Your task to perform on an android device: change notification settings in the gmail app Image 0: 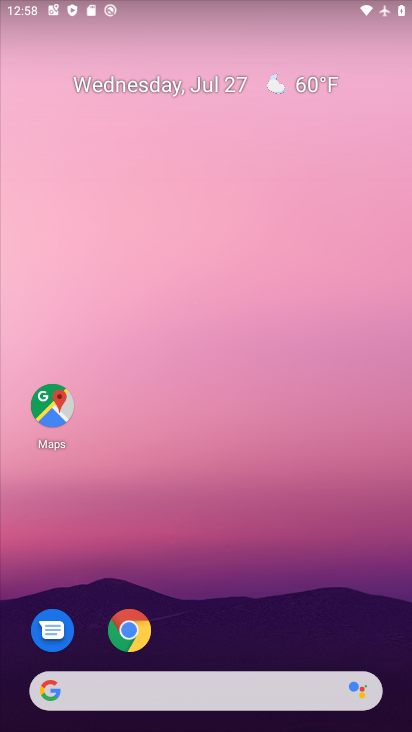
Step 0: press home button
Your task to perform on an android device: change notification settings in the gmail app Image 1: 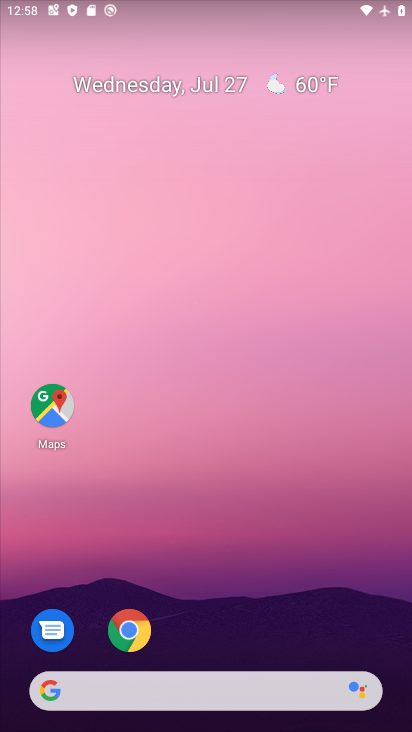
Step 1: drag from (220, 258) to (140, 0)
Your task to perform on an android device: change notification settings in the gmail app Image 2: 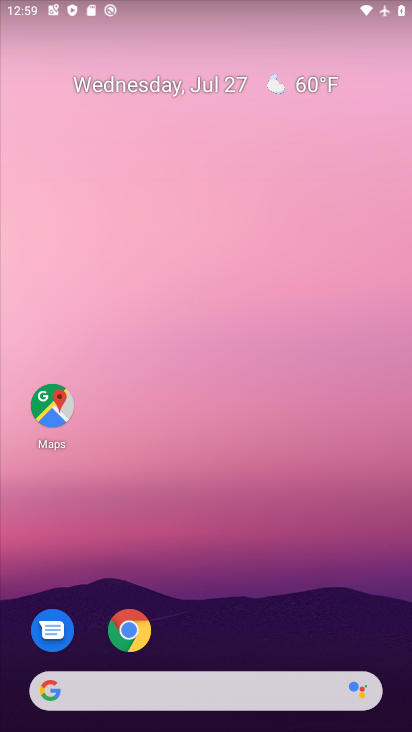
Step 2: drag from (255, 646) to (265, 7)
Your task to perform on an android device: change notification settings in the gmail app Image 3: 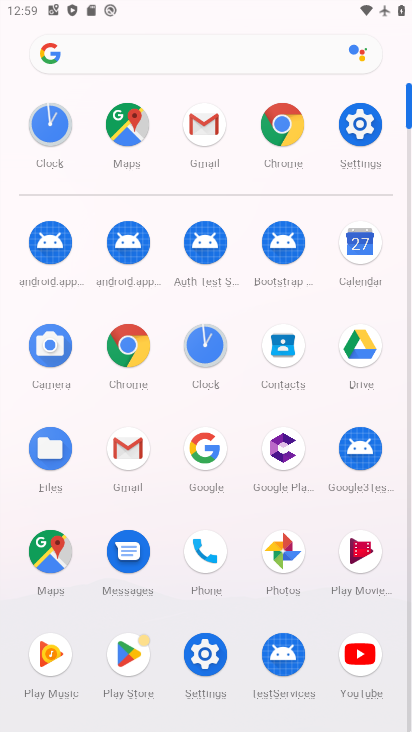
Step 3: click (202, 132)
Your task to perform on an android device: change notification settings in the gmail app Image 4: 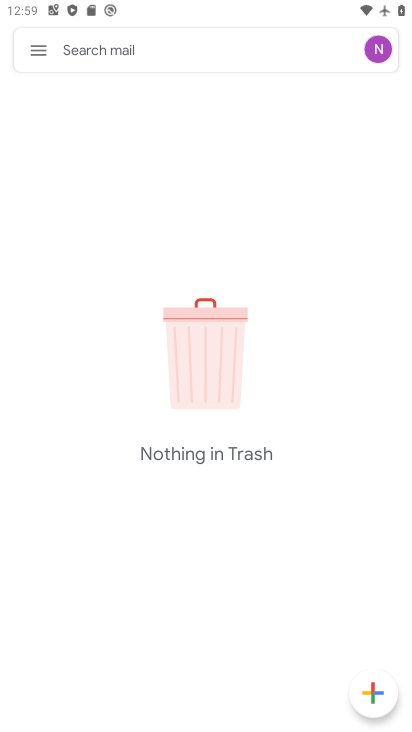
Step 4: click (38, 59)
Your task to perform on an android device: change notification settings in the gmail app Image 5: 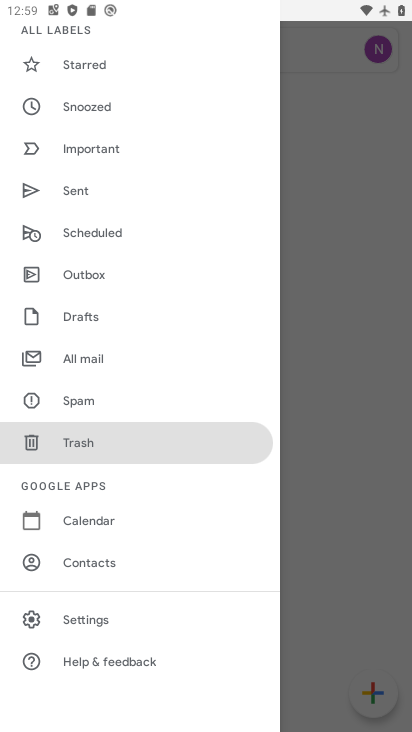
Step 5: click (90, 624)
Your task to perform on an android device: change notification settings in the gmail app Image 6: 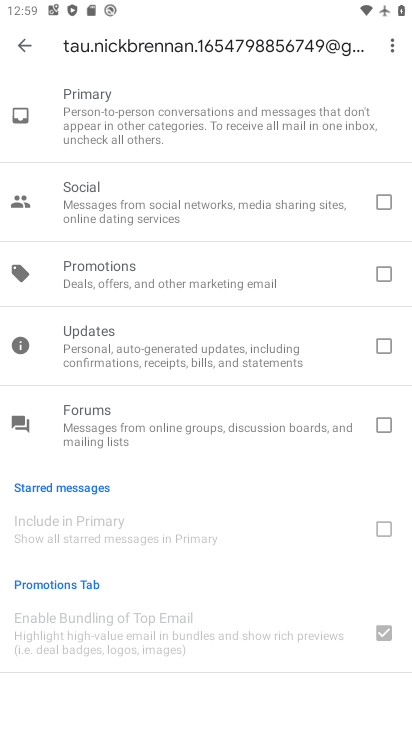
Step 6: click (20, 40)
Your task to perform on an android device: change notification settings in the gmail app Image 7: 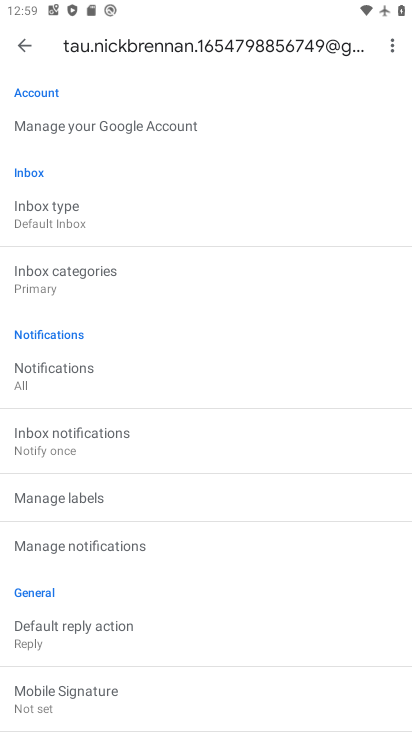
Step 7: click (80, 545)
Your task to perform on an android device: change notification settings in the gmail app Image 8: 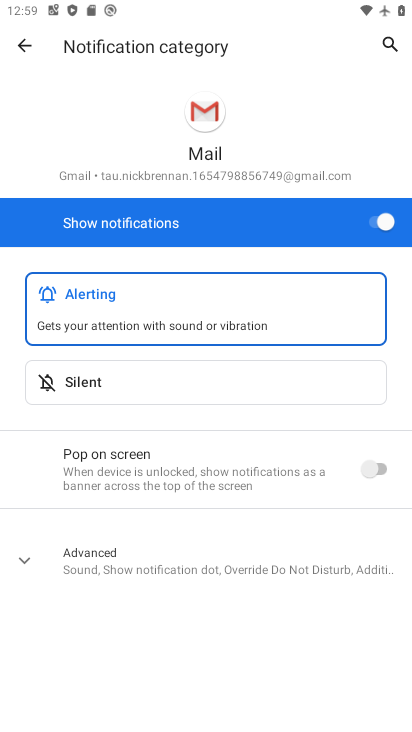
Step 8: click (391, 223)
Your task to perform on an android device: change notification settings in the gmail app Image 9: 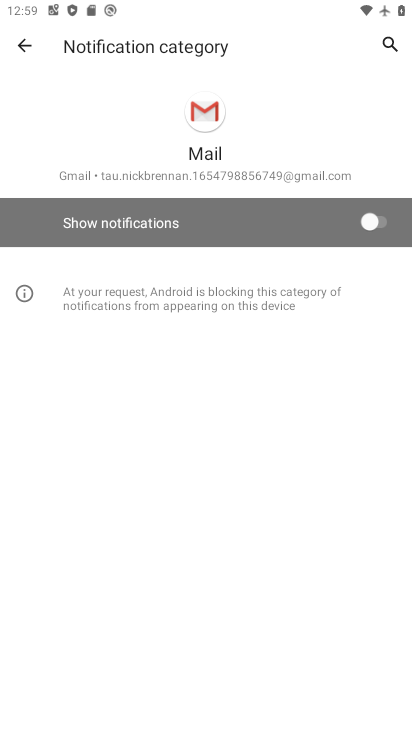
Step 9: task complete